Your task to perform on an android device: Go to calendar. Show me events next week Image 0: 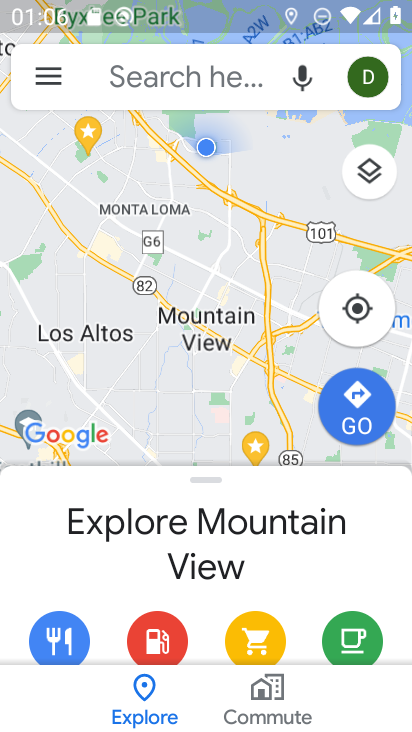
Step 0: press home button
Your task to perform on an android device: Go to calendar. Show me events next week Image 1: 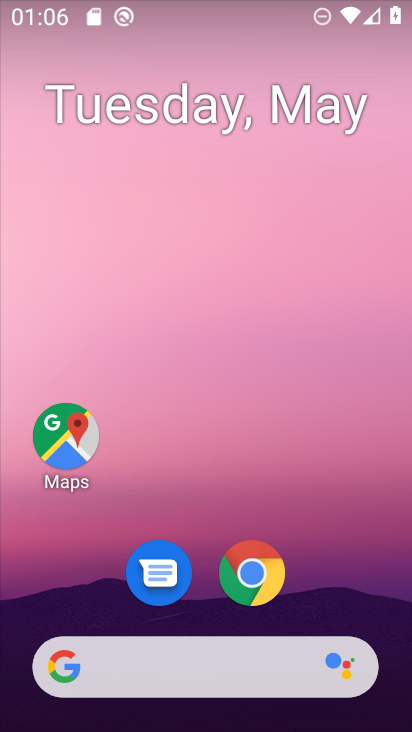
Step 1: drag from (338, 503) to (202, 19)
Your task to perform on an android device: Go to calendar. Show me events next week Image 2: 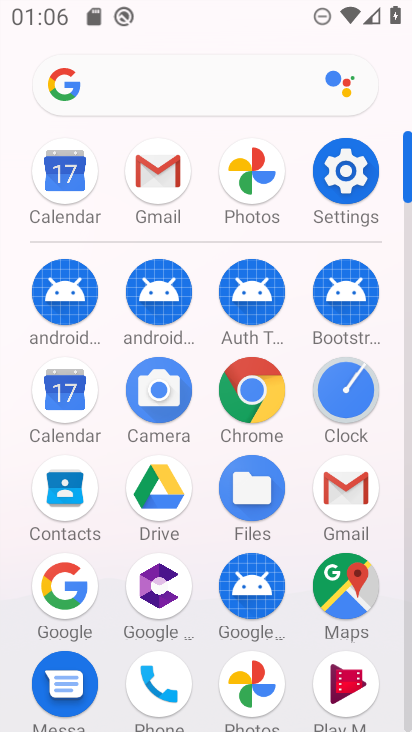
Step 2: click (64, 405)
Your task to perform on an android device: Go to calendar. Show me events next week Image 3: 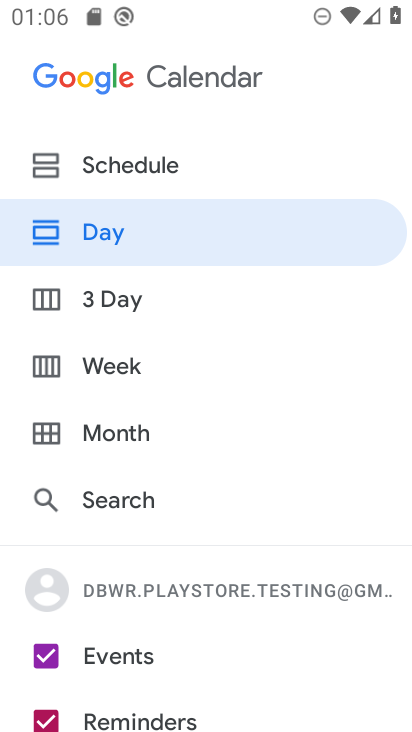
Step 3: click (140, 363)
Your task to perform on an android device: Go to calendar. Show me events next week Image 4: 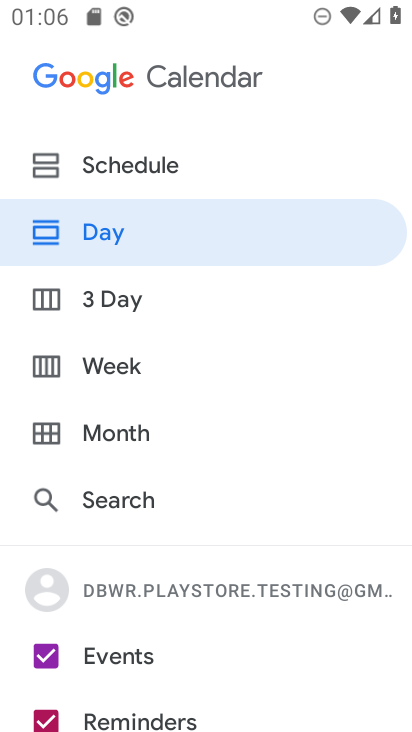
Step 4: click (140, 375)
Your task to perform on an android device: Go to calendar. Show me events next week Image 5: 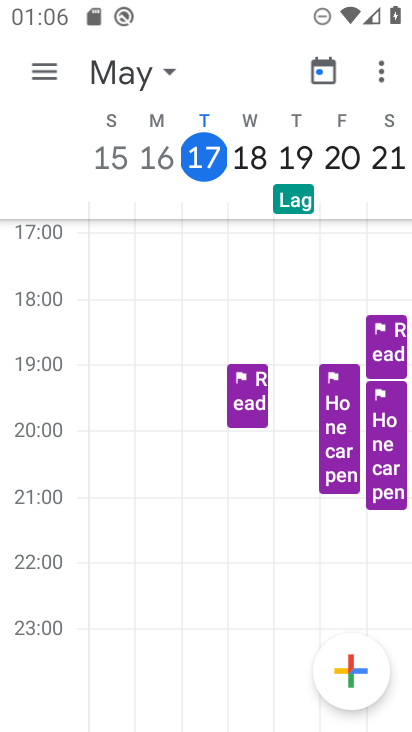
Step 5: click (147, 68)
Your task to perform on an android device: Go to calendar. Show me events next week Image 6: 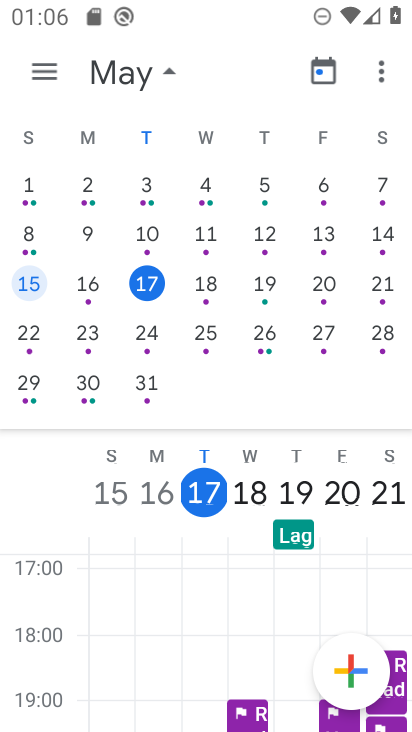
Step 6: click (42, 329)
Your task to perform on an android device: Go to calendar. Show me events next week Image 7: 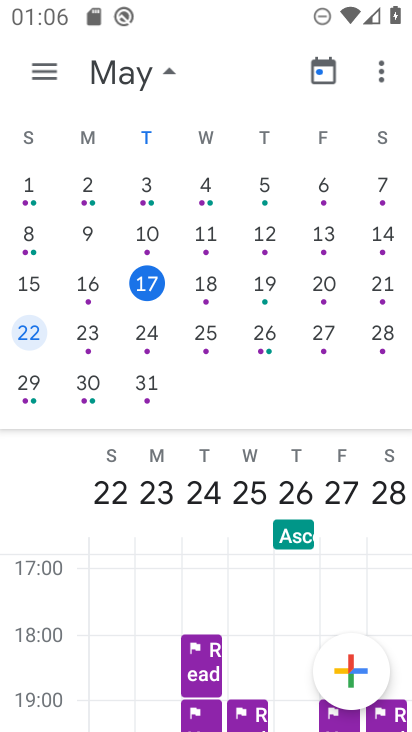
Step 7: task complete